Your task to perform on an android device: Open Reddit.com Image 0: 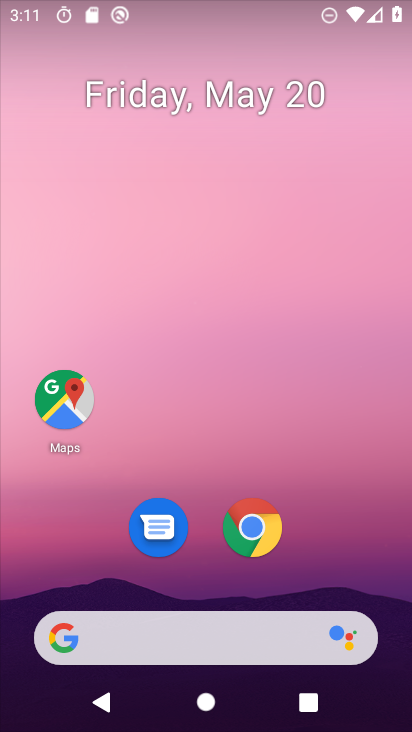
Step 0: drag from (187, 528) to (208, 7)
Your task to perform on an android device: Open Reddit.com Image 1: 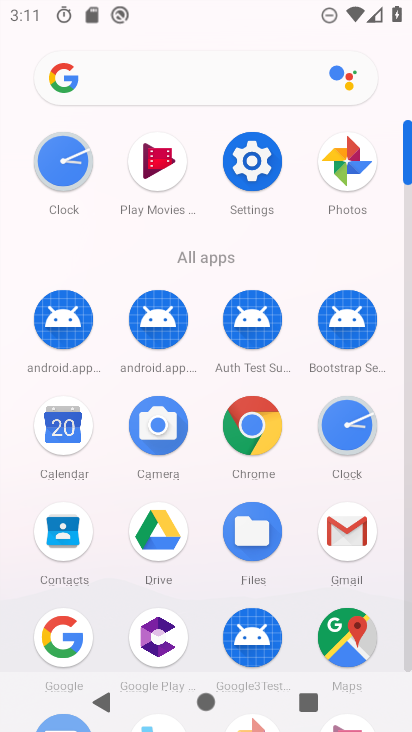
Step 1: click (57, 421)
Your task to perform on an android device: Open Reddit.com Image 2: 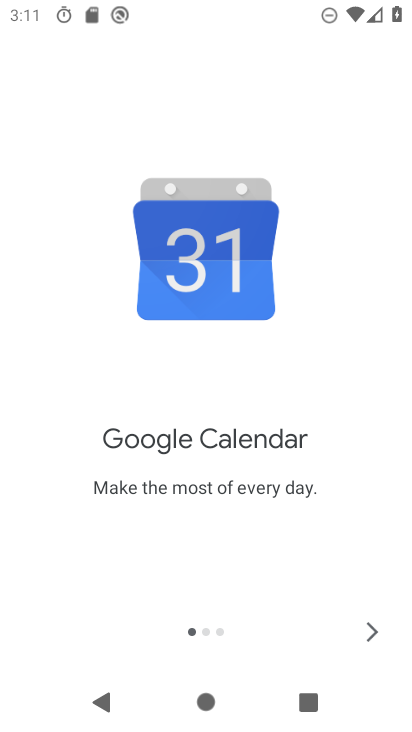
Step 2: press back button
Your task to perform on an android device: Open Reddit.com Image 3: 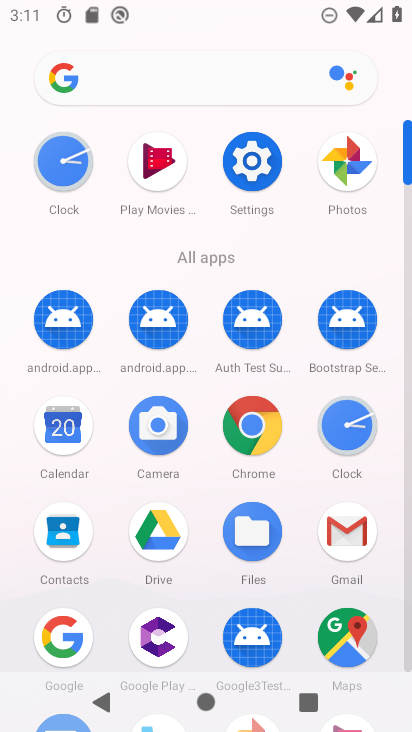
Step 3: click (254, 423)
Your task to perform on an android device: Open Reddit.com Image 4: 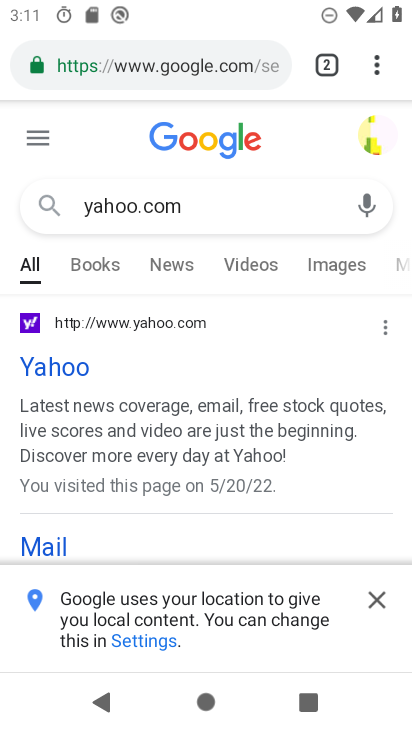
Step 4: click (322, 62)
Your task to perform on an android device: Open Reddit.com Image 5: 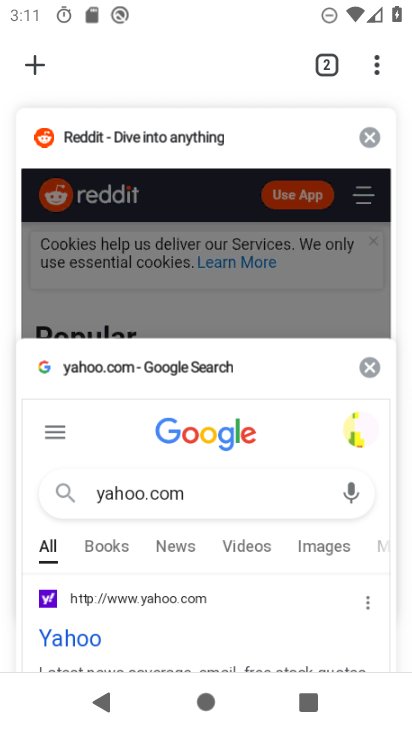
Step 5: click (86, 175)
Your task to perform on an android device: Open Reddit.com Image 6: 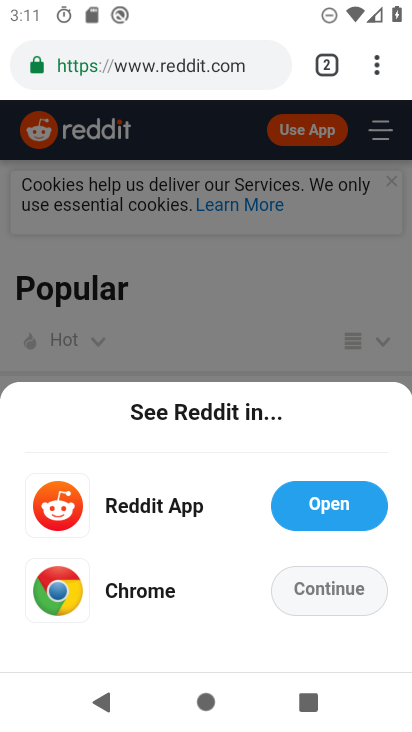
Step 6: task complete